Your task to perform on an android device: turn on location history Image 0: 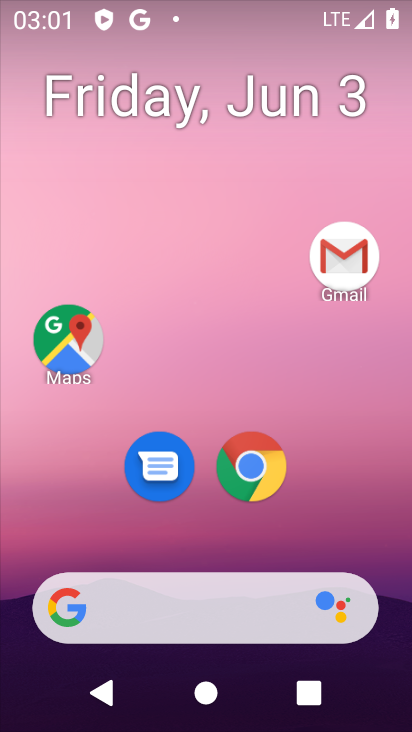
Step 0: drag from (190, 551) to (239, 22)
Your task to perform on an android device: turn on location history Image 1: 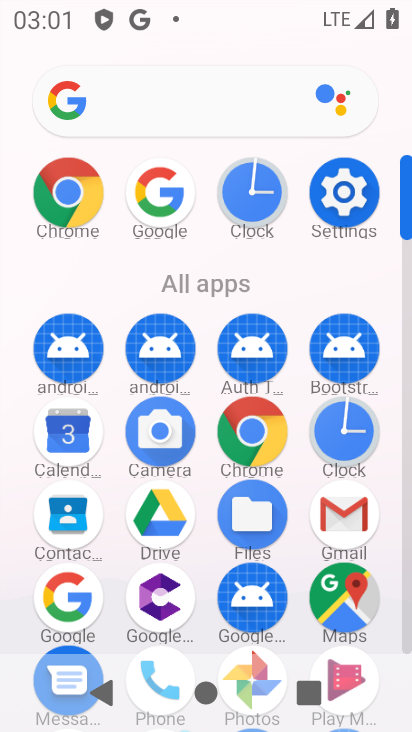
Step 1: click (343, 199)
Your task to perform on an android device: turn on location history Image 2: 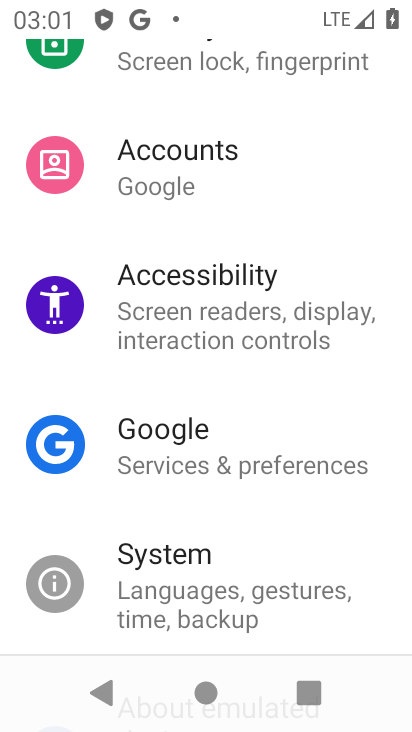
Step 2: drag from (197, 506) to (233, 290)
Your task to perform on an android device: turn on location history Image 3: 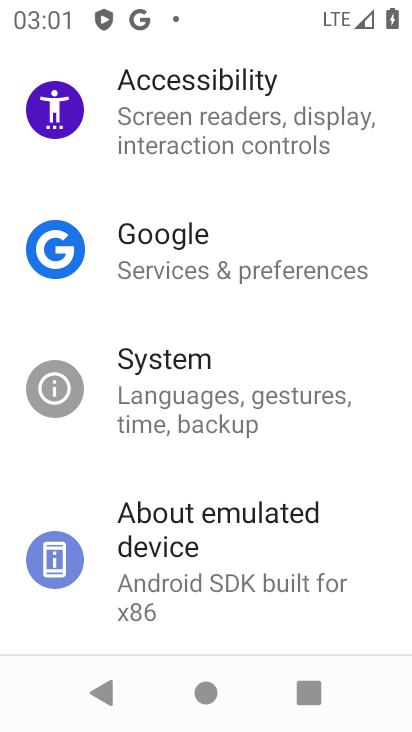
Step 3: drag from (236, 195) to (180, 492)
Your task to perform on an android device: turn on location history Image 4: 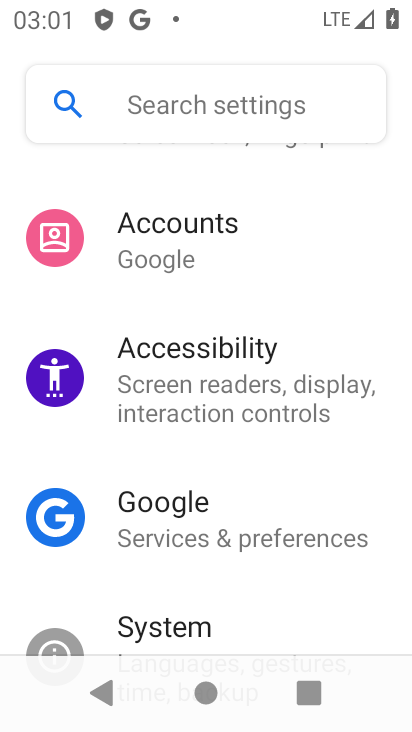
Step 4: drag from (245, 314) to (194, 605)
Your task to perform on an android device: turn on location history Image 5: 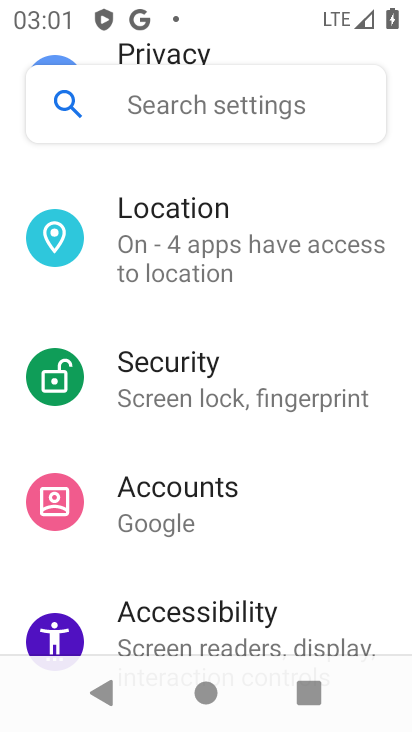
Step 5: click (185, 249)
Your task to perform on an android device: turn on location history Image 6: 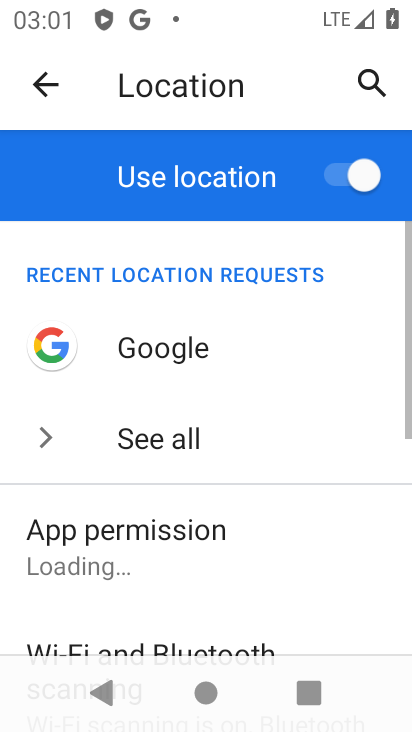
Step 6: drag from (203, 548) to (259, 270)
Your task to perform on an android device: turn on location history Image 7: 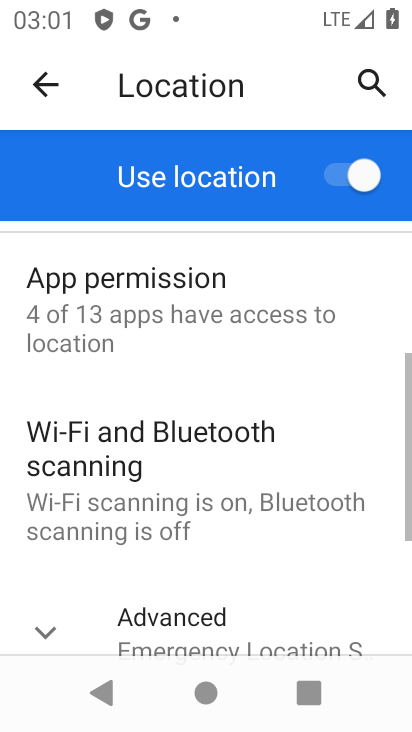
Step 7: click (118, 623)
Your task to perform on an android device: turn on location history Image 8: 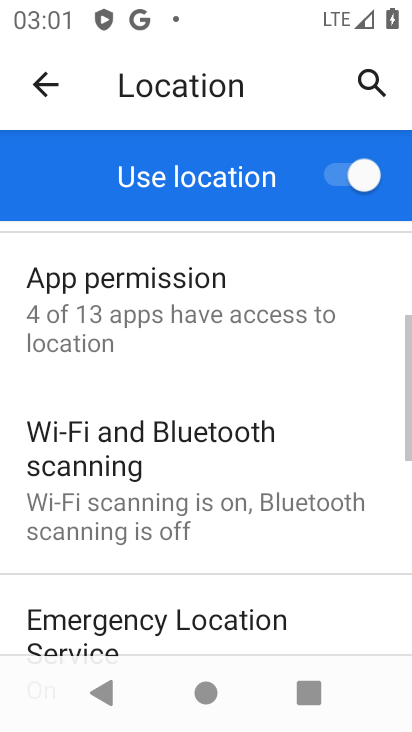
Step 8: drag from (208, 531) to (256, 255)
Your task to perform on an android device: turn on location history Image 9: 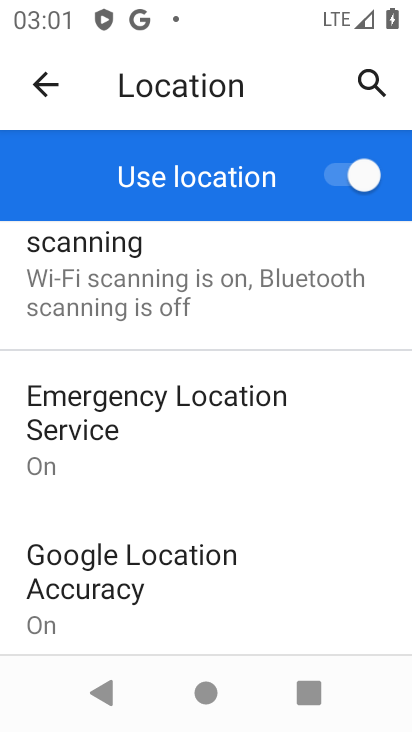
Step 9: drag from (168, 575) to (255, 311)
Your task to perform on an android device: turn on location history Image 10: 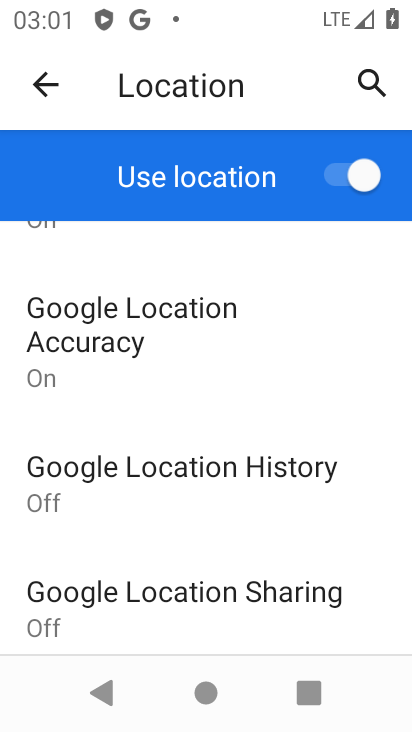
Step 10: click (195, 472)
Your task to perform on an android device: turn on location history Image 11: 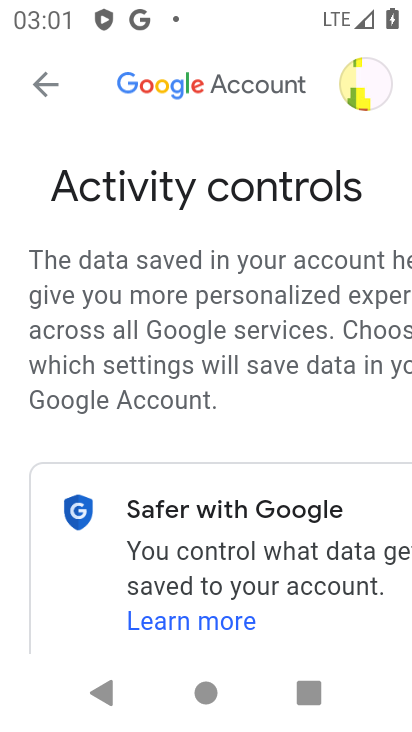
Step 11: drag from (235, 489) to (221, 233)
Your task to perform on an android device: turn on location history Image 12: 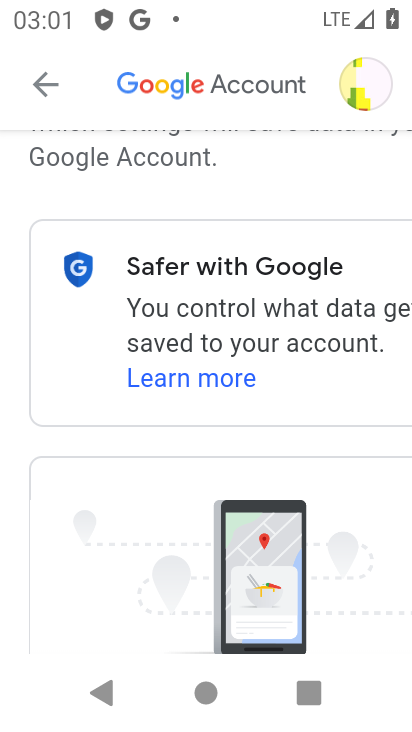
Step 12: drag from (171, 416) to (223, 197)
Your task to perform on an android device: turn on location history Image 13: 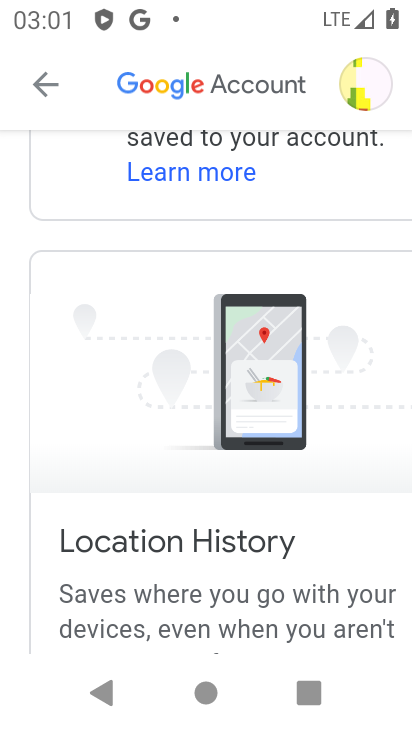
Step 13: drag from (113, 485) to (209, 78)
Your task to perform on an android device: turn on location history Image 14: 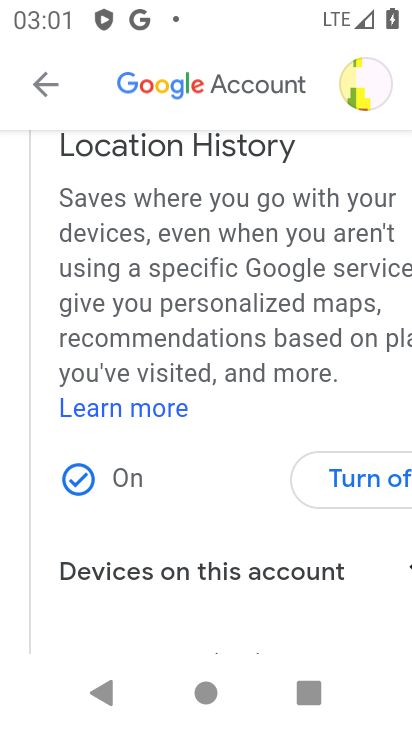
Step 14: click (365, 477)
Your task to perform on an android device: turn on location history Image 15: 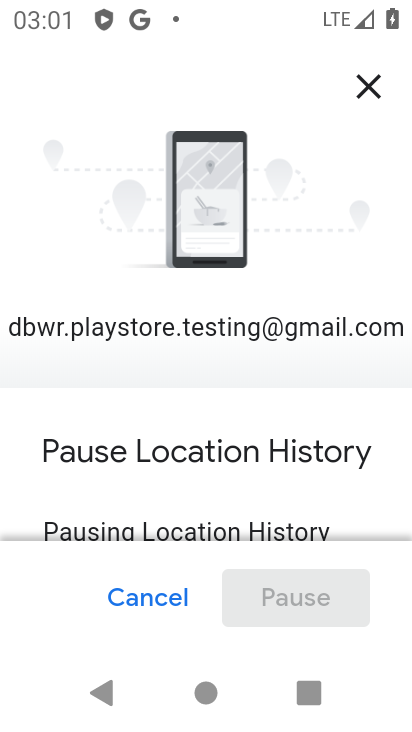
Step 15: drag from (234, 461) to (276, 263)
Your task to perform on an android device: turn on location history Image 16: 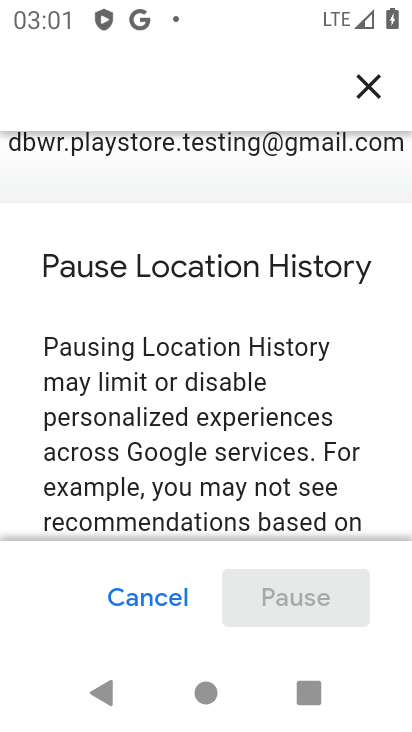
Step 16: drag from (157, 409) to (175, 112)
Your task to perform on an android device: turn on location history Image 17: 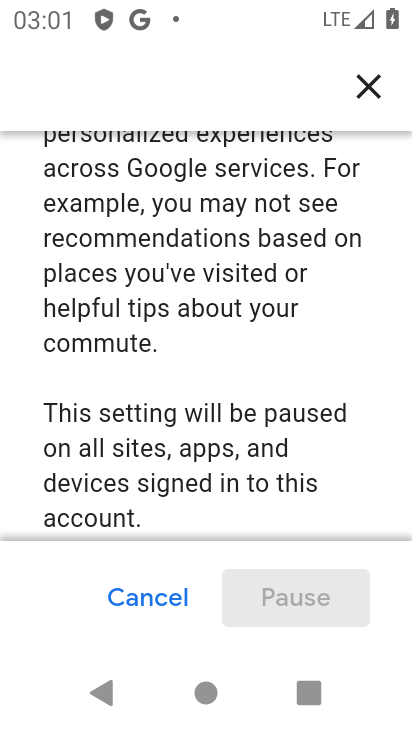
Step 17: drag from (180, 357) to (270, 10)
Your task to perform on an android device: turn on location history Image 18: 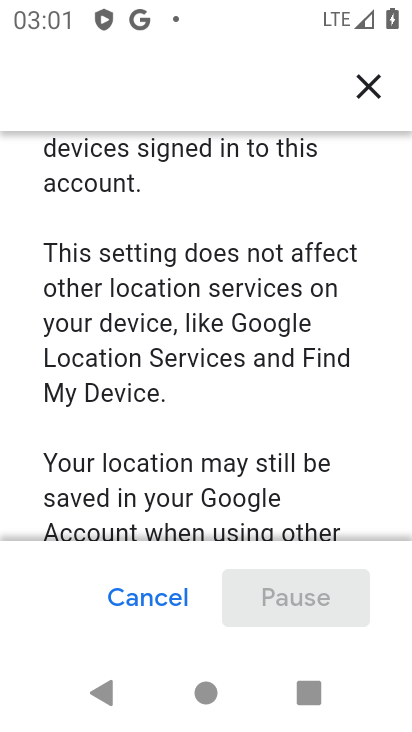
Step 18: drag from (190, 374) to (243, 52)
Your task to perform on an android device: turn on location history Image 19: 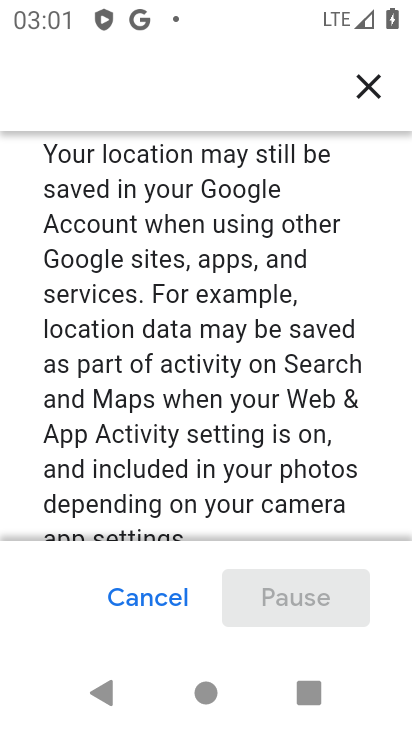
Step 19: drag from (179, 357) to (215, 46)
Your task to perform on an android device: turn on location history Image 20: 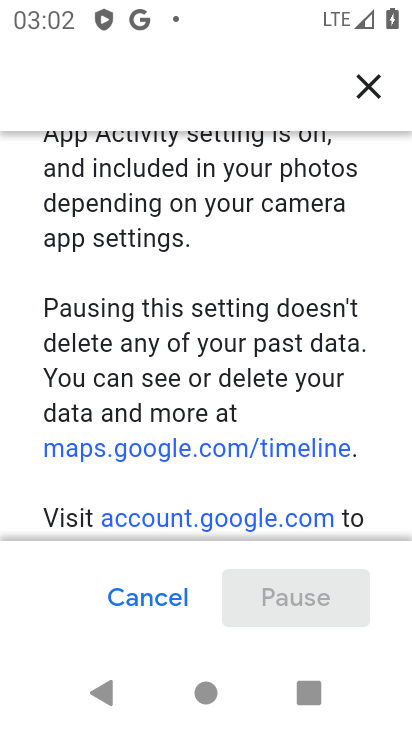
Step 20: click (203, 93)
Your task to perform on an android device: turn on location history Image 21: 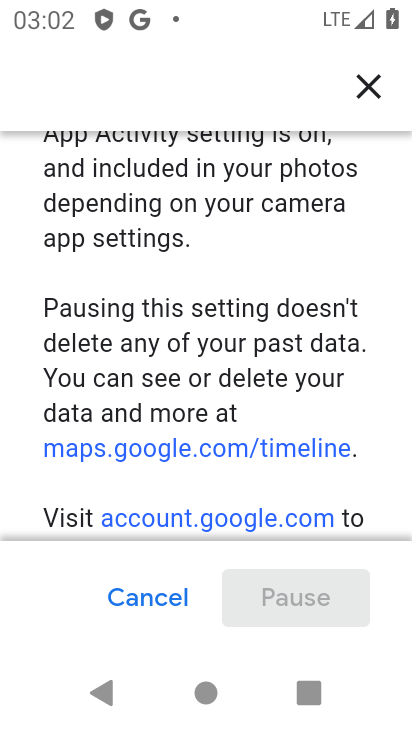
Step 21: drag from (180, 456) to (208, 183)
Your task to perform on an android device: turn on location history Image 22: 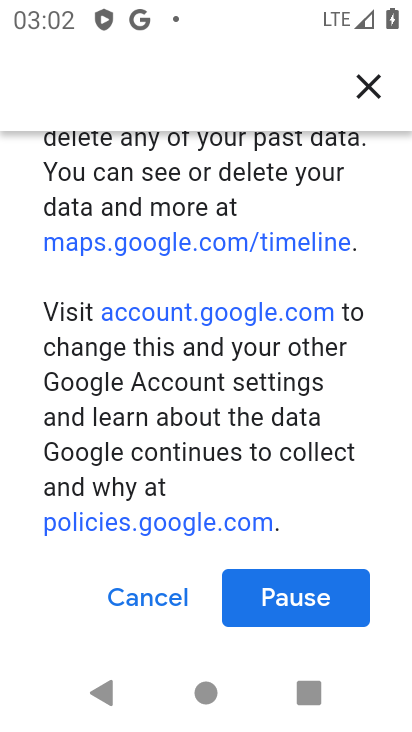
Step 22: click (278, 610)
Your task to perform on an android device: turn on location history Image 23: 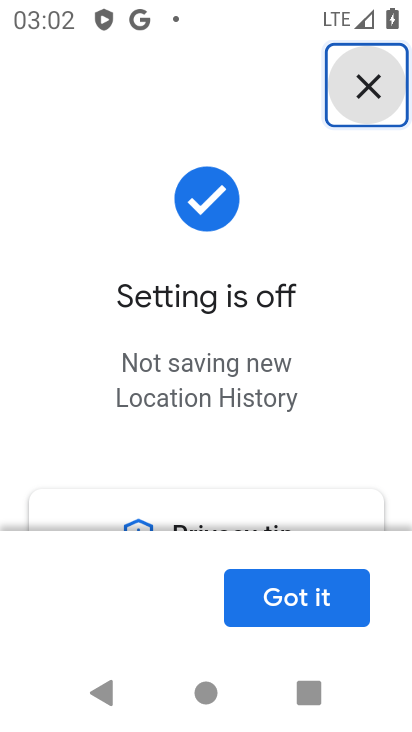
Step 23: click (247, 632)
Your task to perform on an android device: turn on location history Image 24: 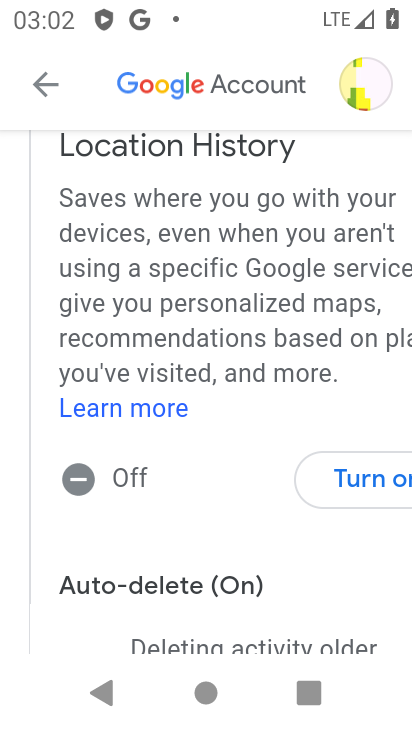
Step 24: task complete